Your task to perform on an android device: delete location history Image 0: 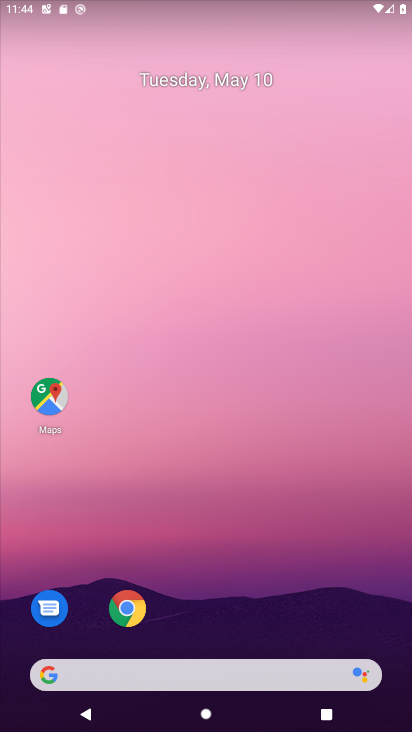
Step 0: click (162, 664)
Your task to perform on an android device: delete location history Image 1: 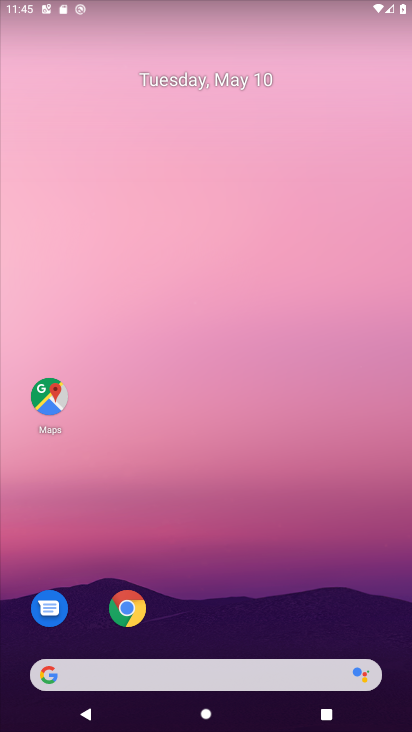
Step 1: click (48, 389)
Your task to perform on an android device: delete location history Image 2: 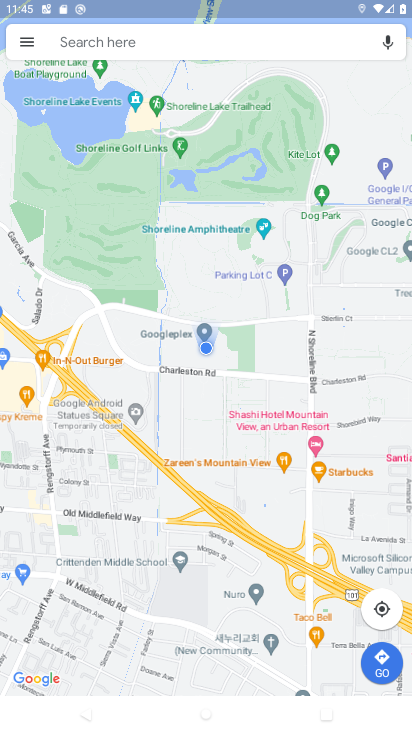
Step 2: click (29, 43)
Your task to perform on an android device: delete location history Image 3: 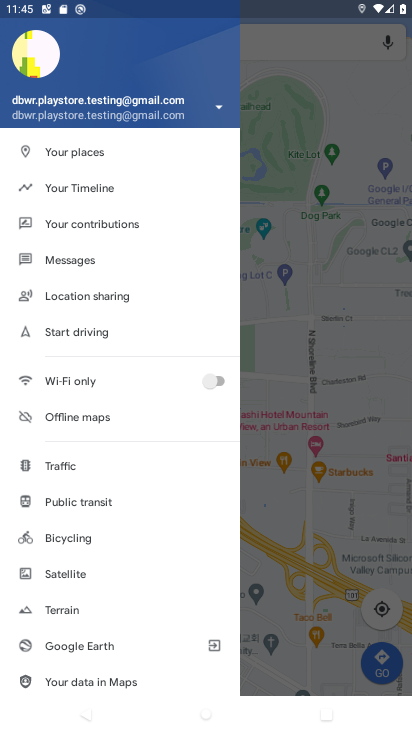
Step 3: click (71, 182)
Your task to perform on an android device: delete location history Image 4: 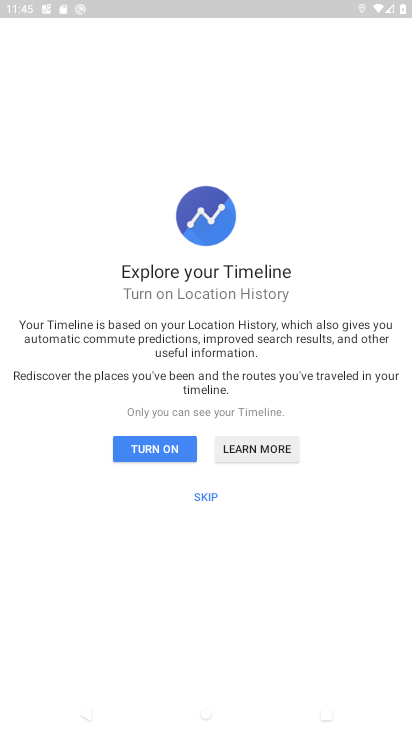
Step 4: click (153, 447)
Your task to perform on an android device: delete location history Image 5: 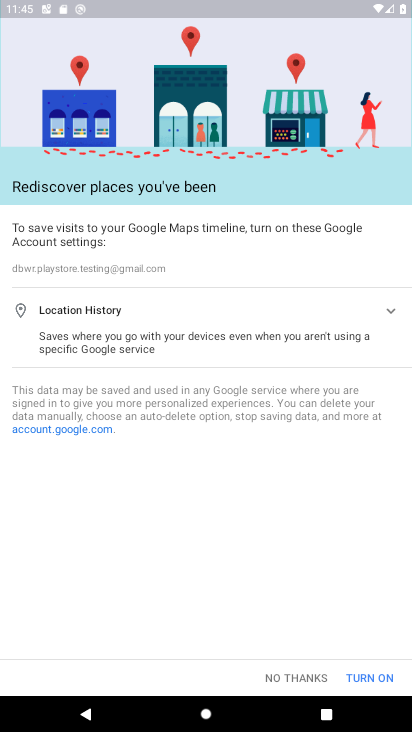
Step 5: click (358, 680)
Your task to perform on an android device: delete location history Image 6: 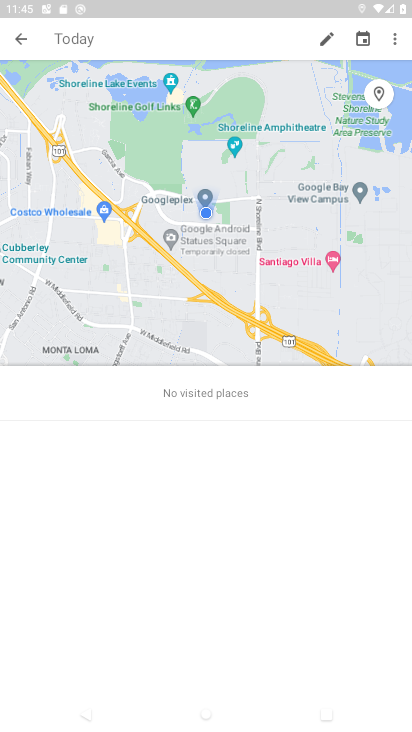
Step 6: click (396, 40)
Your task to perform on an android device: delete location history Image 7: 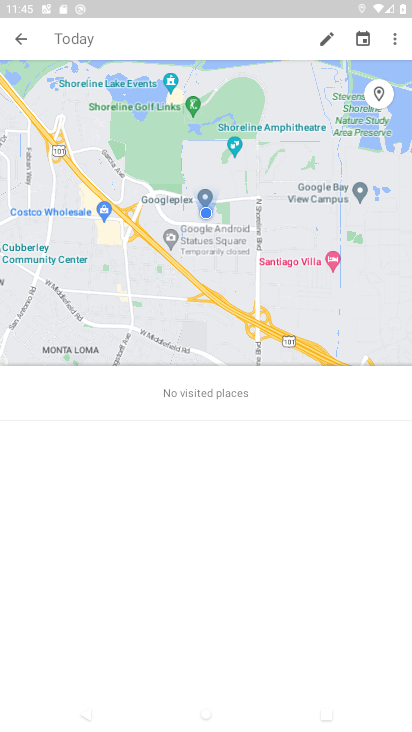
Step 7: click (403, 38)
Your task to perform on an android device: delete location history Image 8: 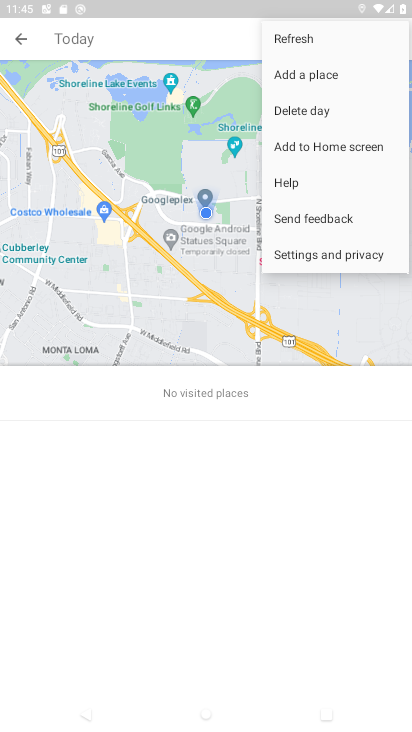
Step 8: click (313, 257)
Your task to perform on an android device: delete location history Image 9: 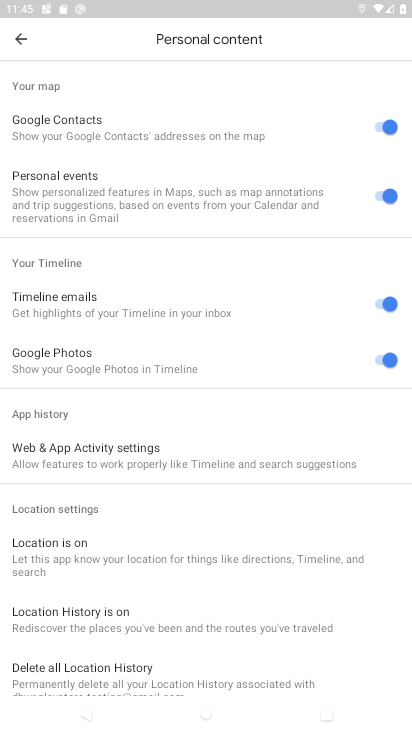
Step 9: drag from (194, 591) to (230, 89)
Your task to perform on an android device: delete location history Image 10: 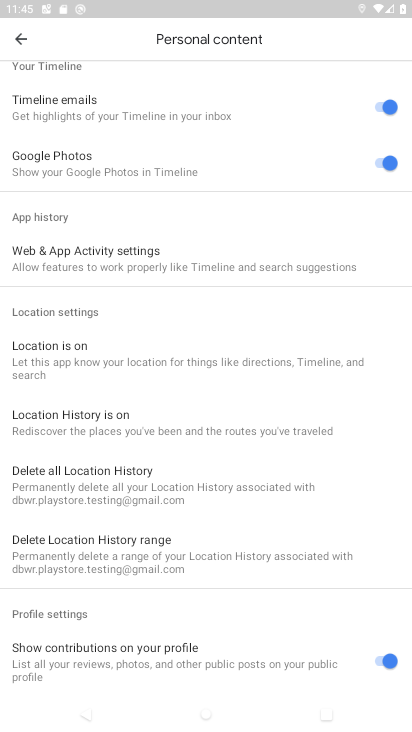
Step 10: click (177, 486)
Your task to perform on an android device: delete location history Image 11: 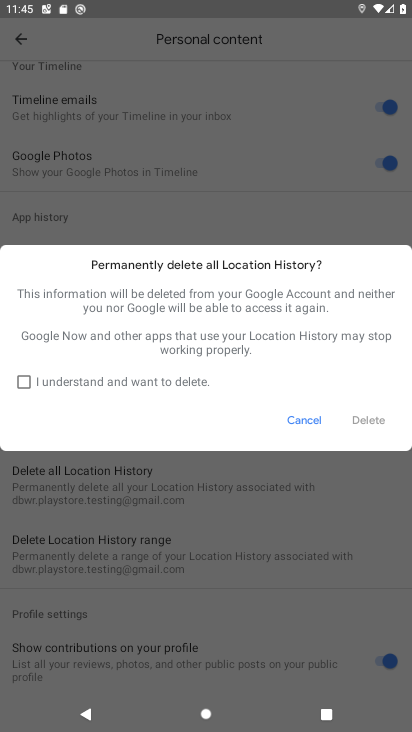
Step 11: click (135, 381)
Your task to perform on an android device: delete location history Image 12: 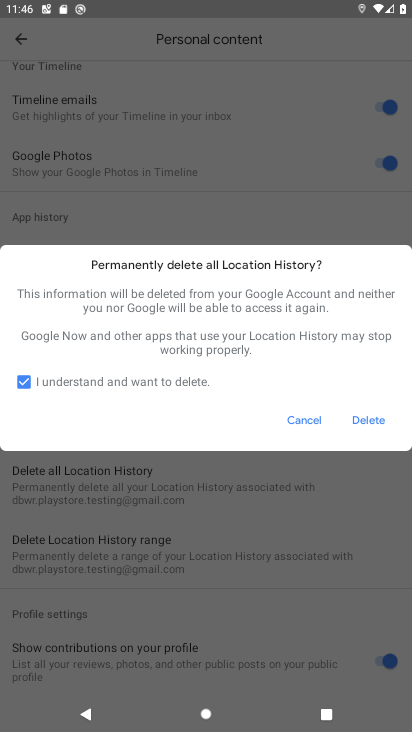
Step 12: click (376, 424)
Your task to perform on an android device: delete location history Image 13: 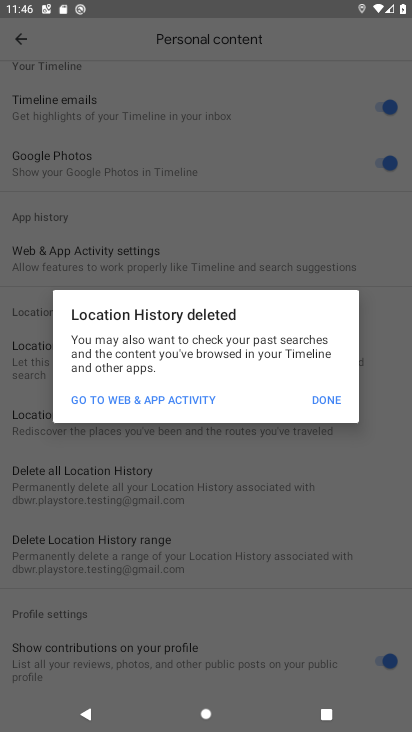
Step 13: click (315, 410)
Your task to perform on an android device: delete location history Image 14: 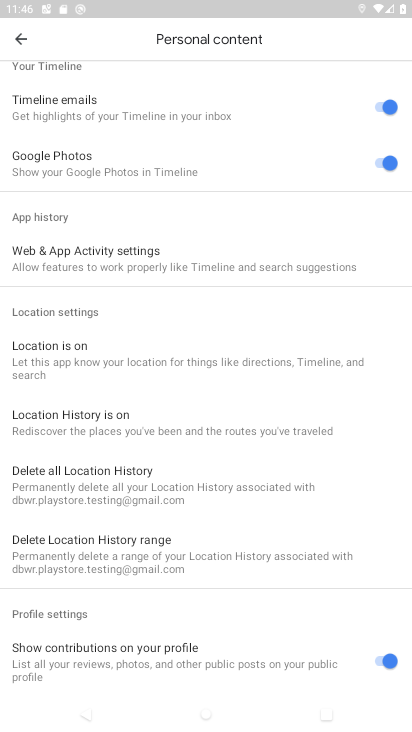
Step 14: task complete